Your task to perform on an android device: Show the shopping cart on newegg. Image 0: 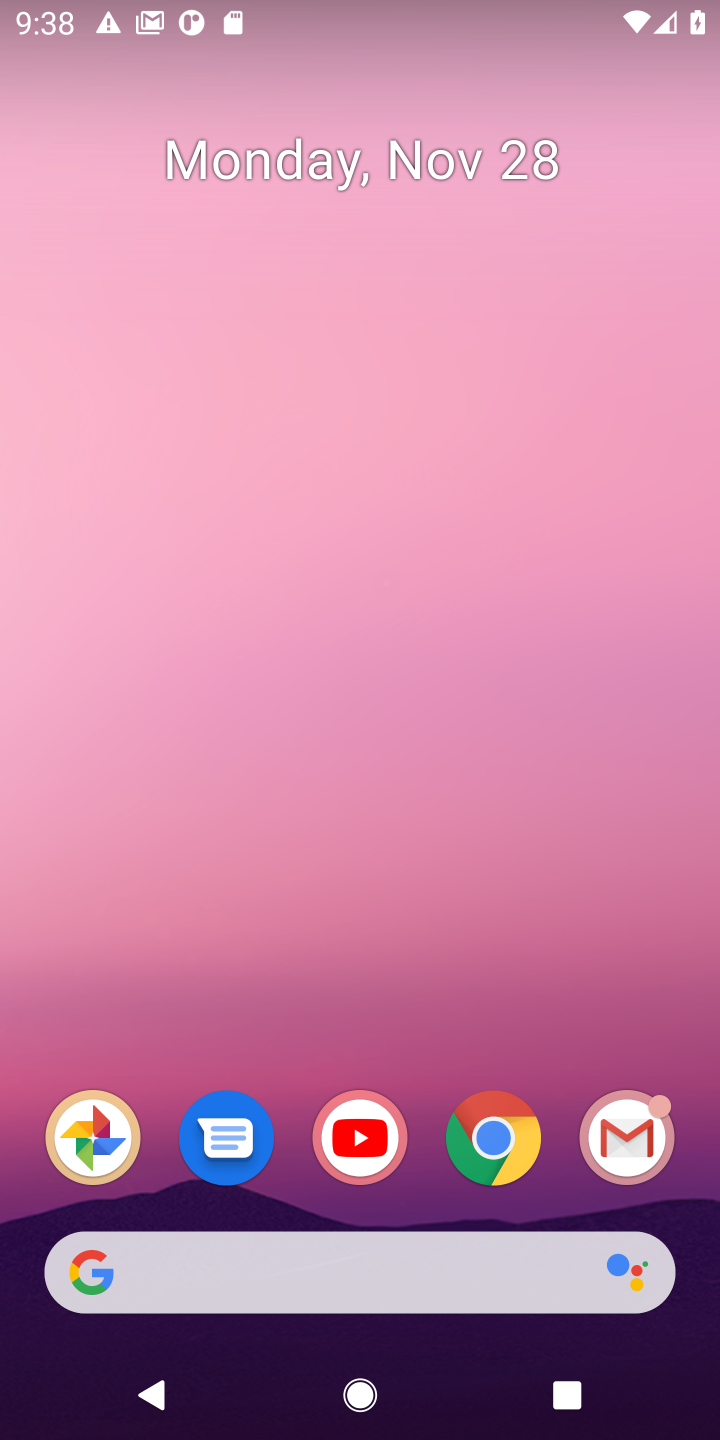
Step 0: click (487, 1145)
Your task to perform on an android device: Show the shopping cart on newegg. Image 1: 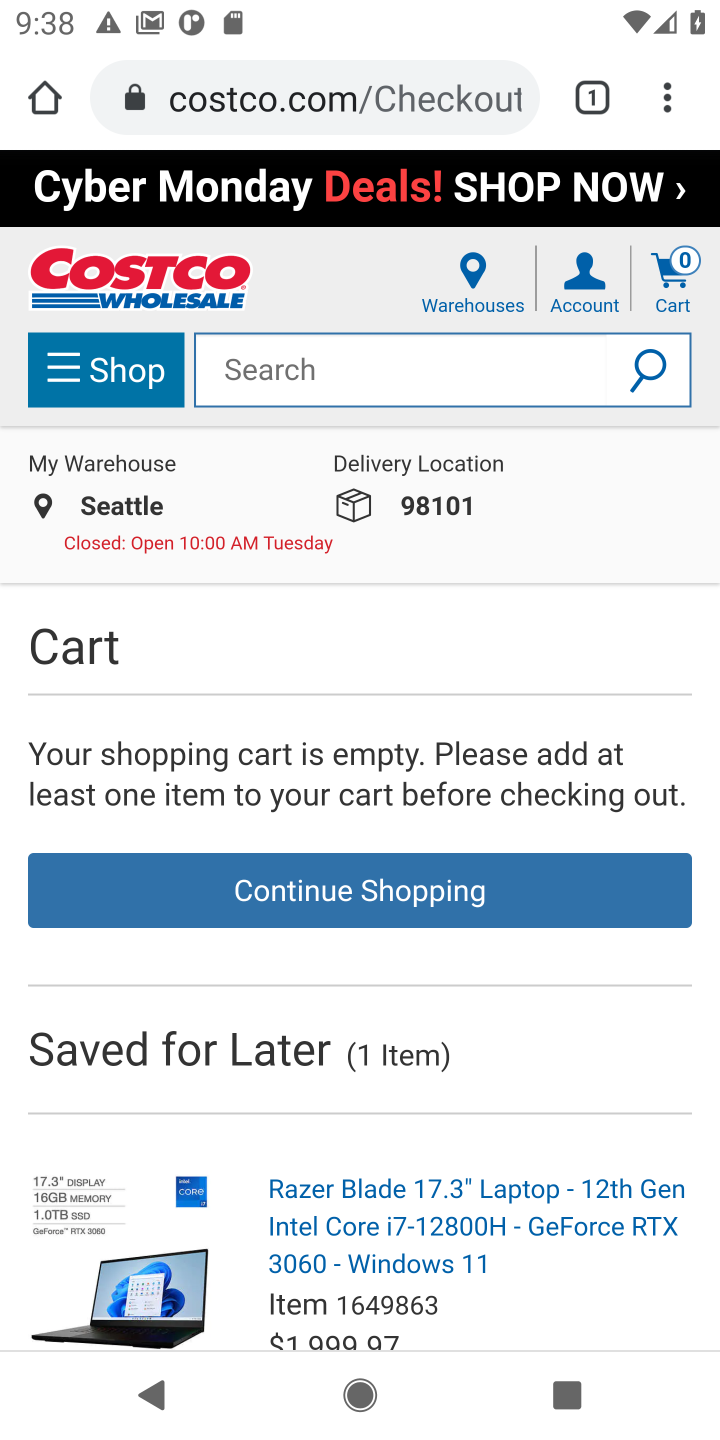
Step 1: click (332, 98)
Your task to perform on an android device: Show the shopping cart on newegg. Image 2: 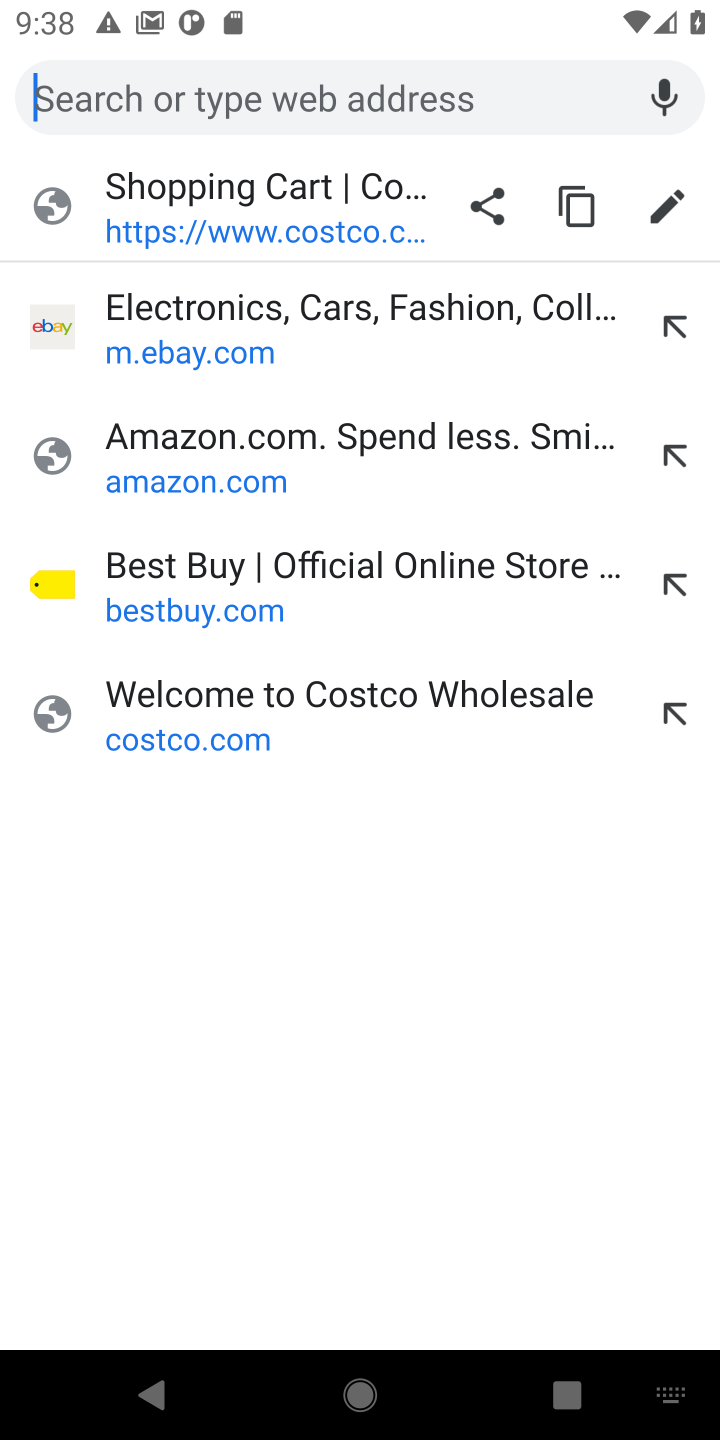
Step 2: type "newegg.com"
Your task to perform on an android device: Show the shopping cart on newegg. Image 3: 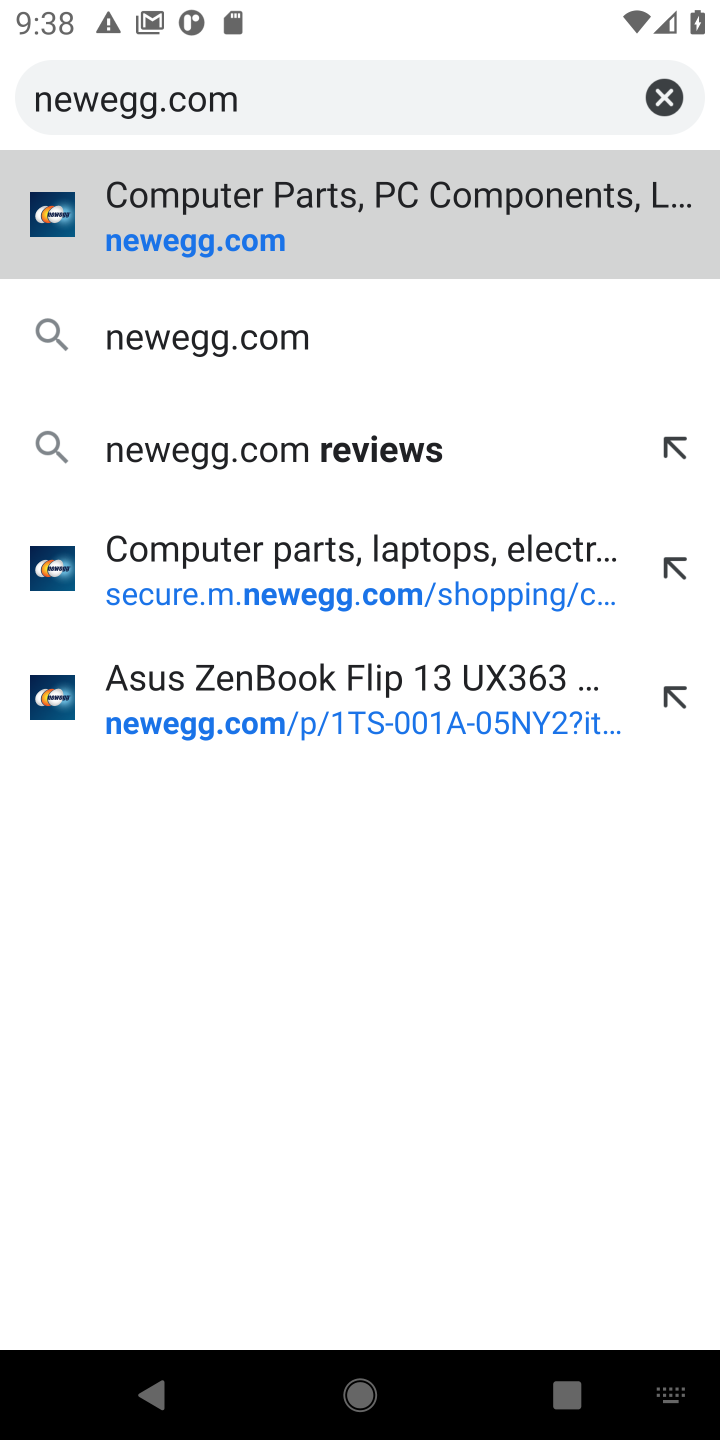
Step 3: click (198, 245)
Your task to perform on an android device: Show the shopping cart on newegg. Image 4: 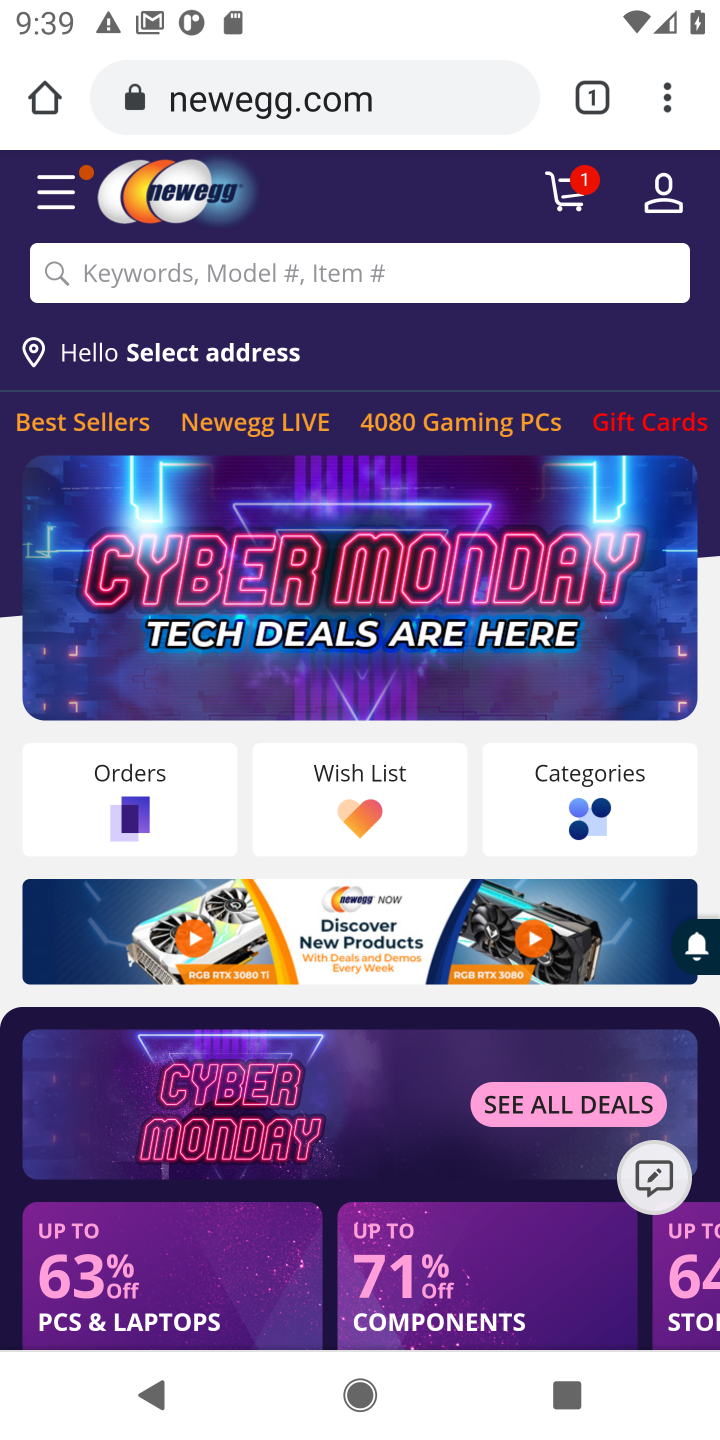
Step 4: click (576, 194)
Your task to perform on an android device: Show the shopping cart on newegg. Image 5: 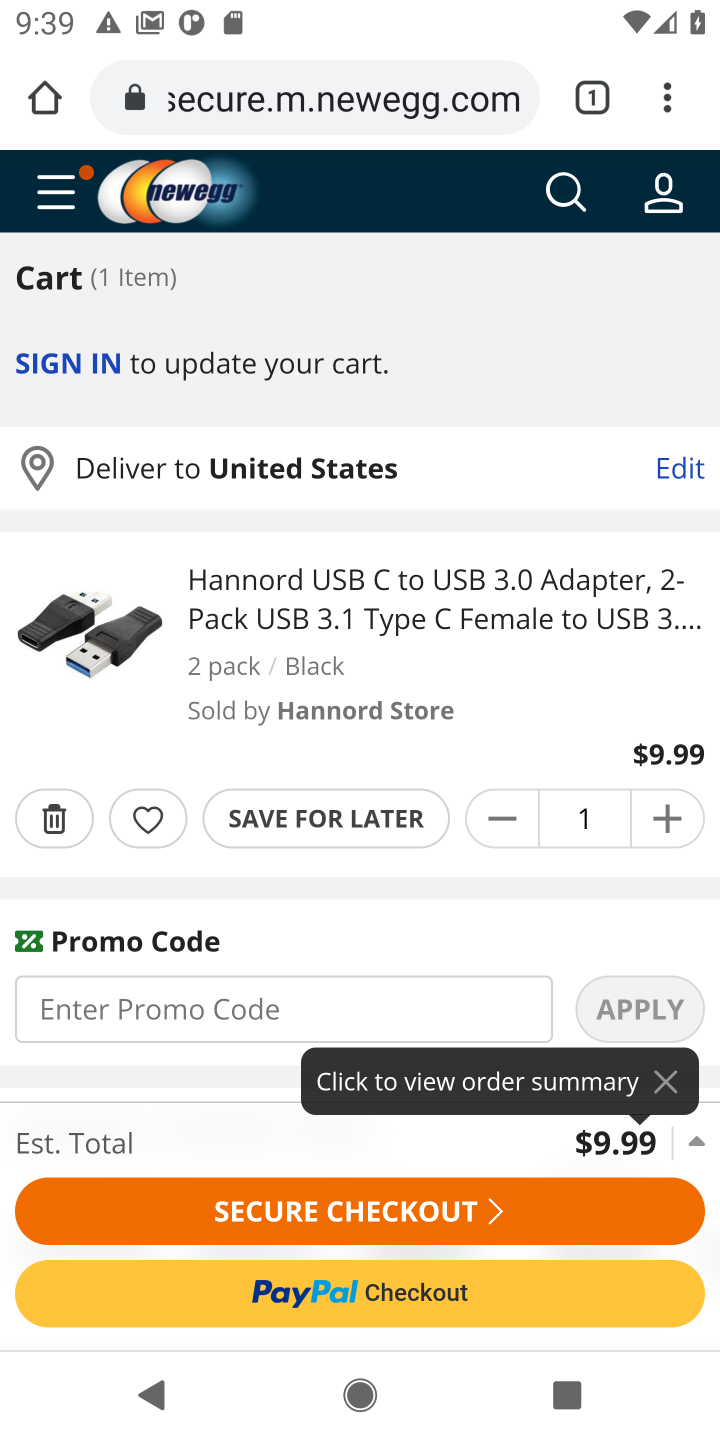
Step 5: task complete